Your task to perform on an android device: Do I have any events this weekend? Image 0: 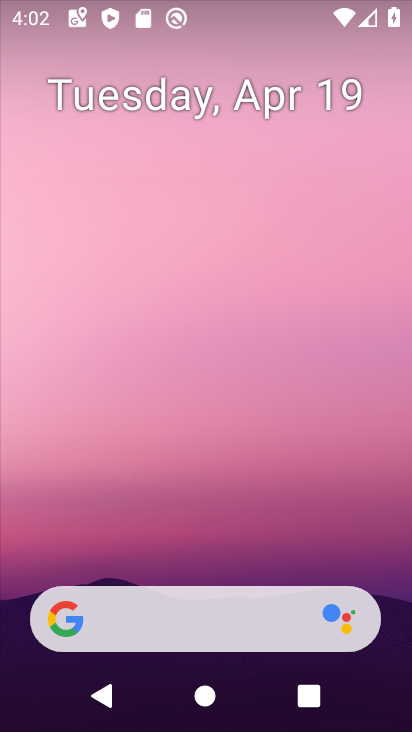
Step 0: drag from (248, 499) to (310, 73)
Your task to perform on an android device: Do I have any events this weekend? Image 1: 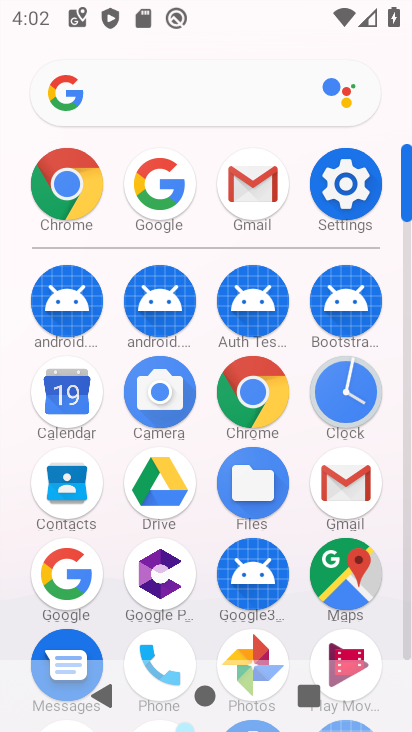
Step 1: click (72, 393)
Your task to perform on an android device: Do I have any events this weekend? Image 2: 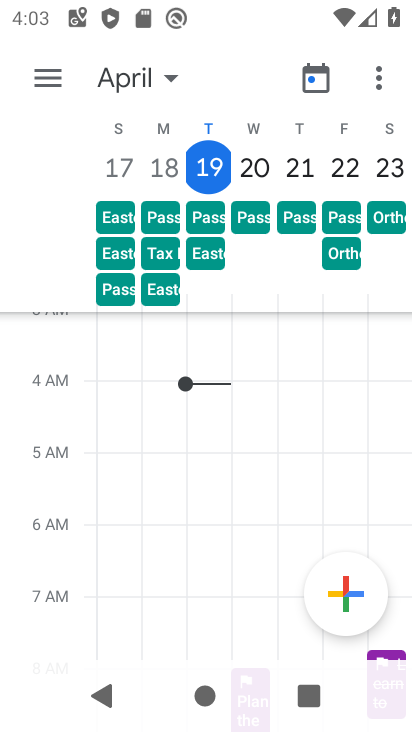
Step 2: click (175, 78)
Your task to perform on an android device: Do I have any events this weekend? Image 3: 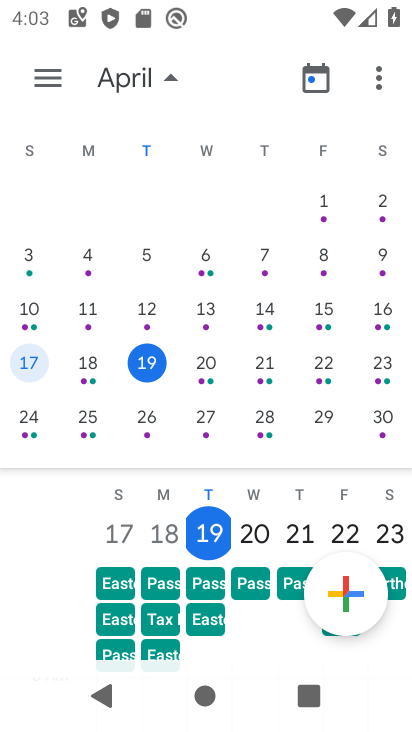
Step 3: click (380, 361)
Your task to perform on an android device: Do I have any events this weekend? Image 4: 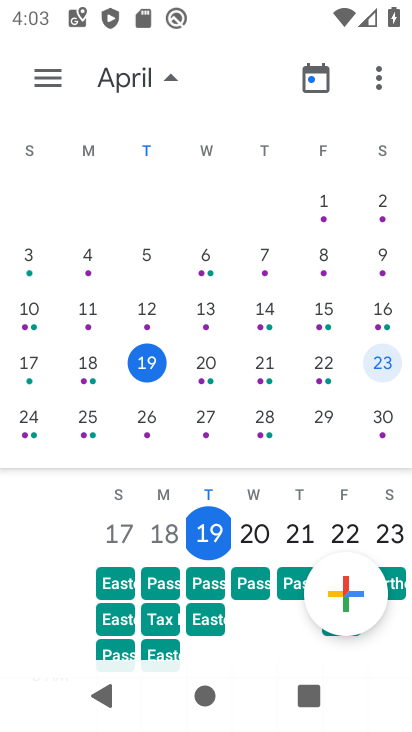
Step 4: click (56, 84)
Your task to perform on an android device: Do I have any events this weekend? Image 5: 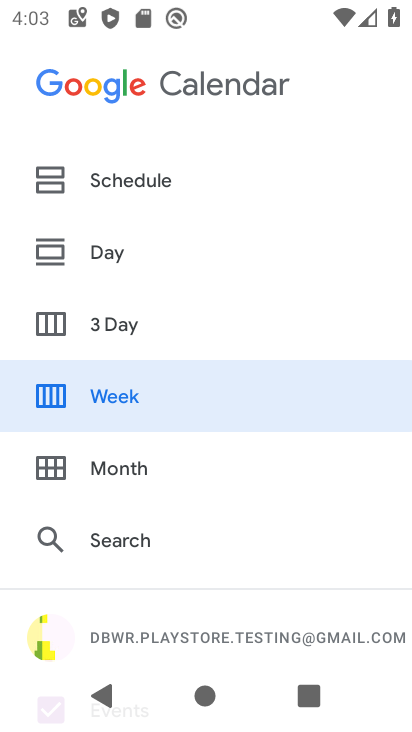
Step 5: click (117, 417)
Your task to perform on an android device: Do I have any events this weekend? Image 6: 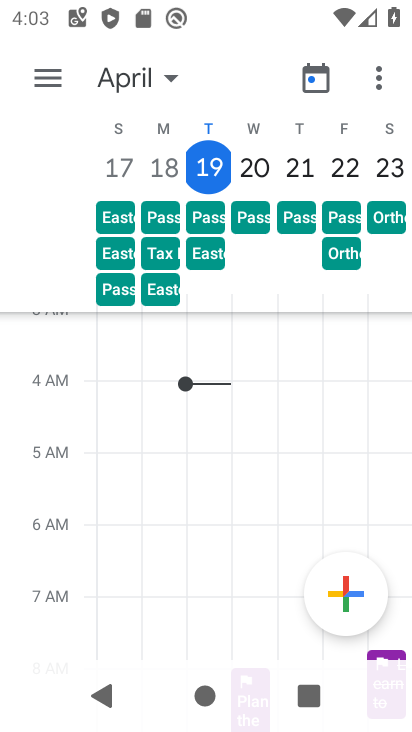
Step 6: task complete